Your task to perform on an android device: Go to Maps Image 0: 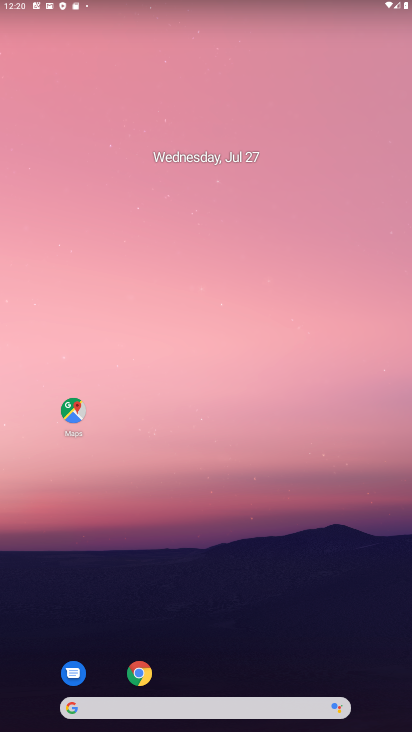
Step 0: drag from (122, 686) to (187, 287)
Your task to perform on an android device: Go to Maps Image 1: 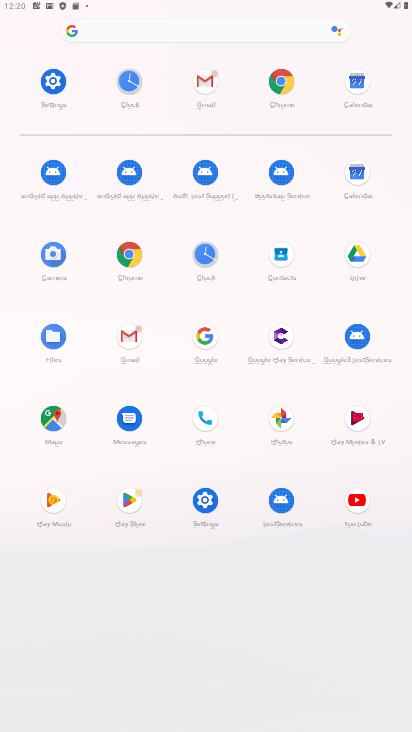
Step 1: click (54, 421)
Your task to perform on an android device: Go to Maps Image 2: 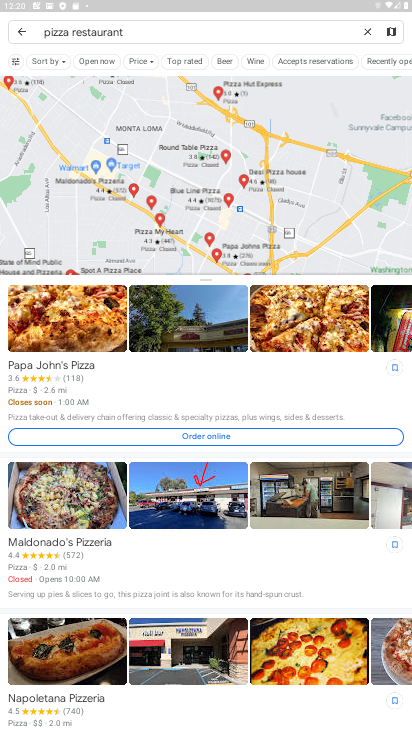
Step 2: task complete